Your task to perform on an android device: Open the calendar app, open the side menu, and click the "Day" option Image 0: 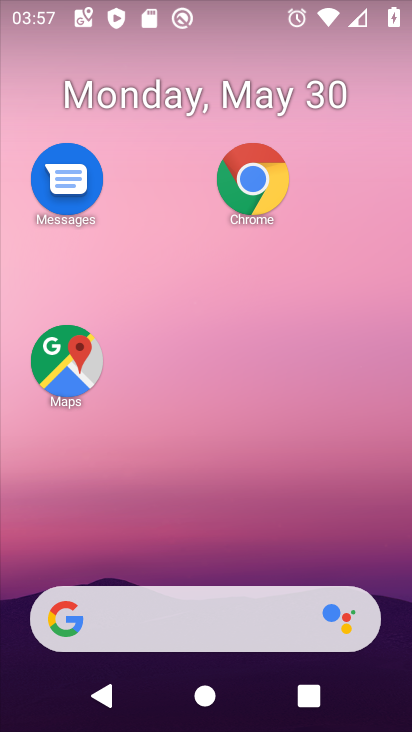
Step 0: drag from (182, 362) to (233, 10)
Your task to perform on an android device: Open the calendar app, open the side menu, and click the "Day" option Image 1: 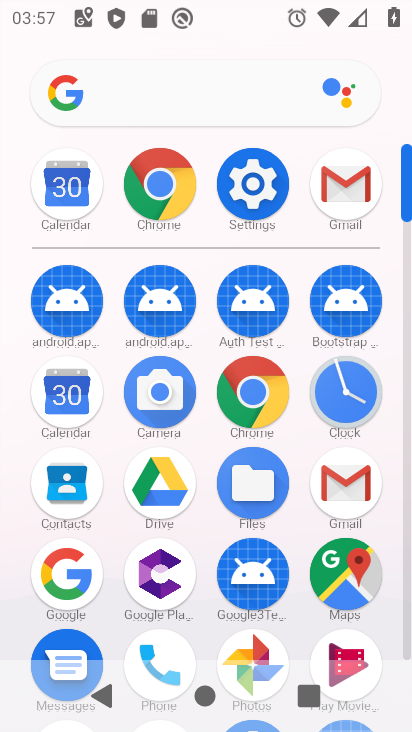
Step 1: click (50, 419)
Your task to perform on an android device: Open the calendar app, open the side menu, and click the "Day" option Image 2: 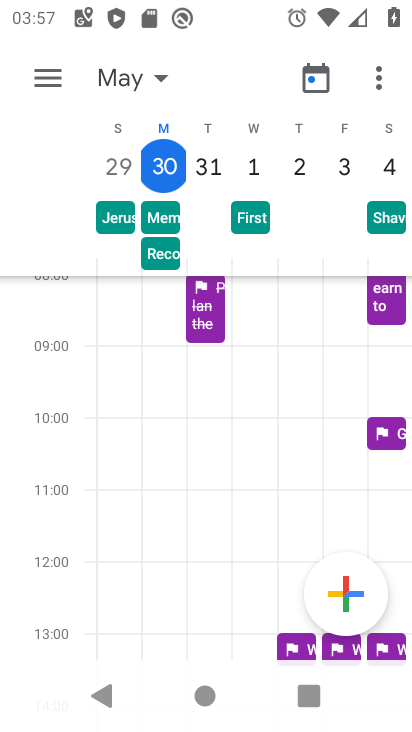
Step 2: click (49, 72)
Your task to perform on an android device: Open the calendar app, open the side menu, and click the "Day" option Image 3: 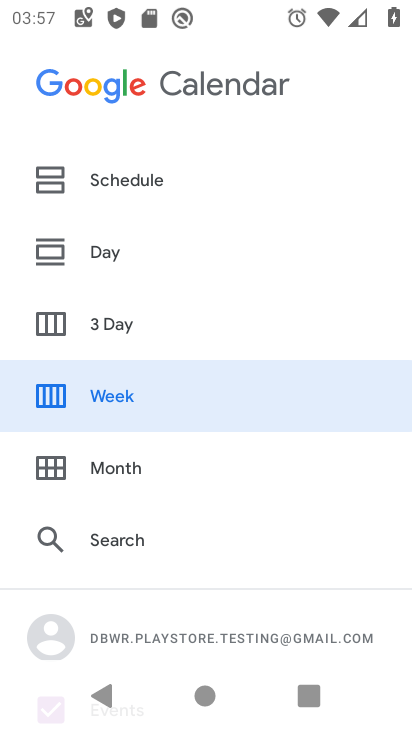
Step 3: click (91, 254)
Your task to perform on an android device: Open the calendar app, open the side menu, and click the "Day" option Image 4: 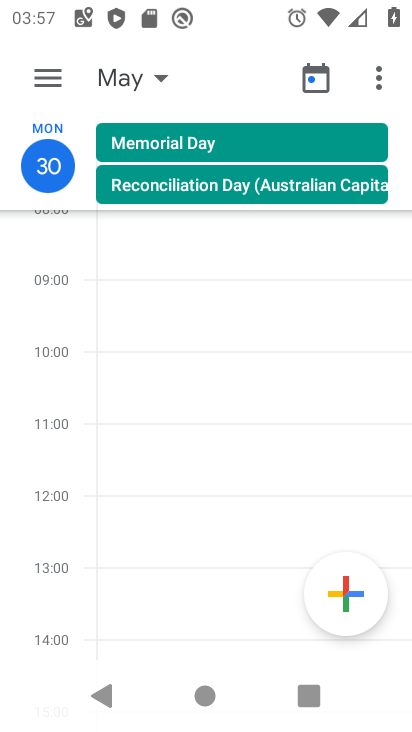
Step 4: task complete